Your task to perform on an android device: turn on improve location accuracy Image 0: 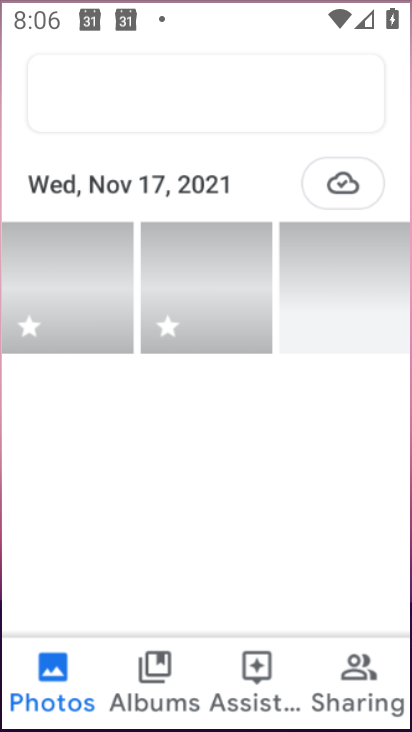
Step 0: drag from (300, 418) to (261, 226)
Your task to perform on an android device: turn on improve location accuracy Image 1: 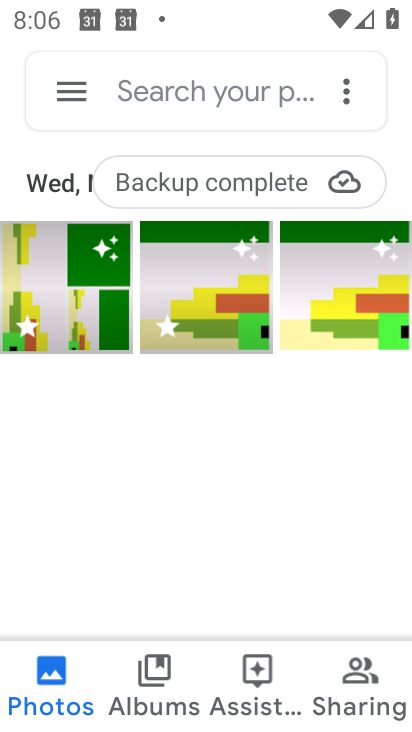
Step 1: press home button
Your task to perform on an android device: turn on improve location accuracy Image 2: 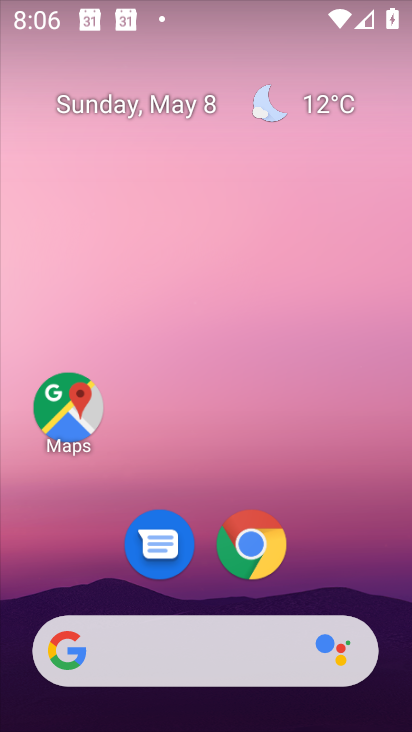
Step 2: drag from (332, 560) to (292, 178)
Your task to perform on an android device: turn on improve location accuracy Image 3: 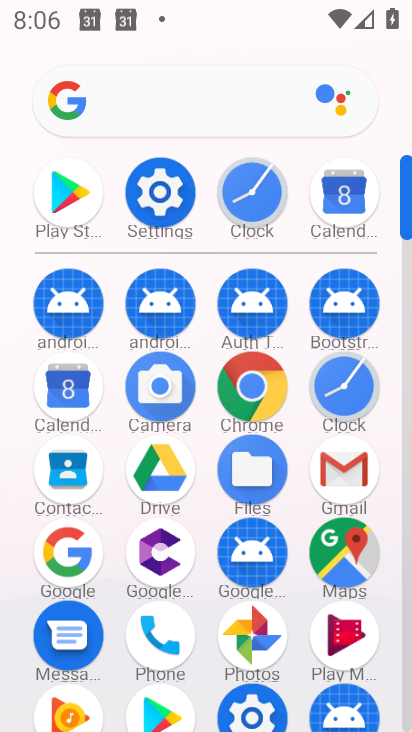
Step 3: click (162, 195)
Your task to perform on an android device: turn on improve location accuracy Image 4: 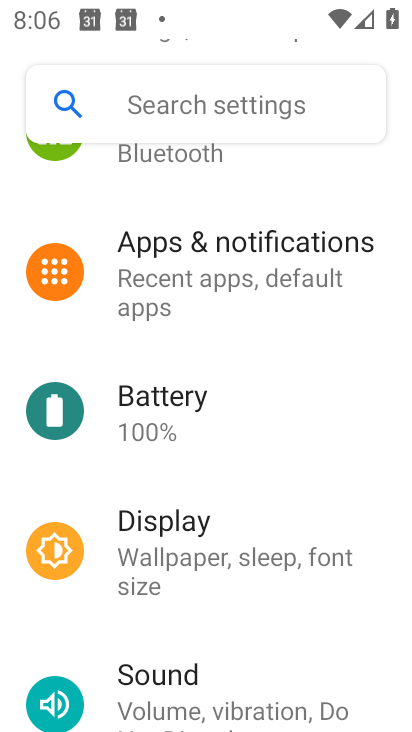
Step 4: drag from (269, 612) to (268, 261)
Your task to perform on an android device: turn on improve location accuracy Image 5: 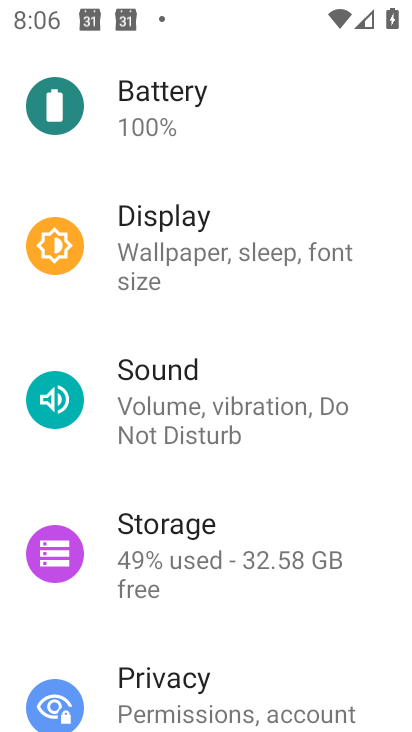
Step 5: drag from (233, 623) to (228, 277)
Your task to perform on an android device: turn on improve location accuracy Image 6: 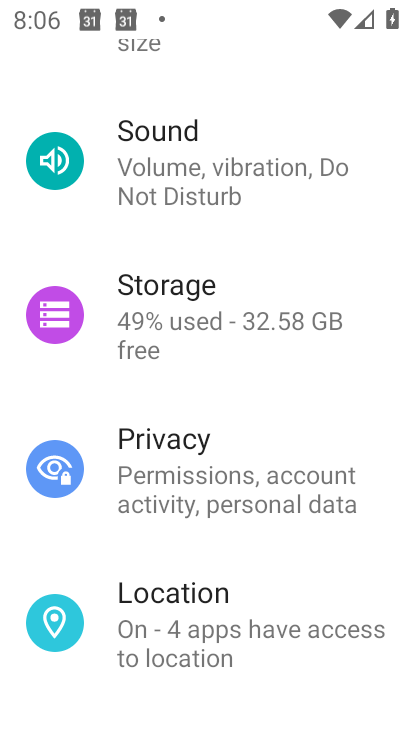
Step 6: click (166, 604)
Your task to perform on an android device: turn on improve location accuracy Image 7: 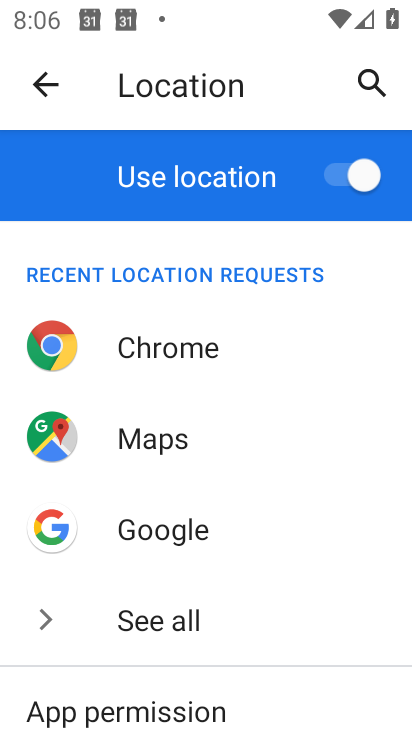
Step 7: drag from (264, 602) to (245, 324)
Your task to perform on an android device: turn on improve location accuracy Image 8: 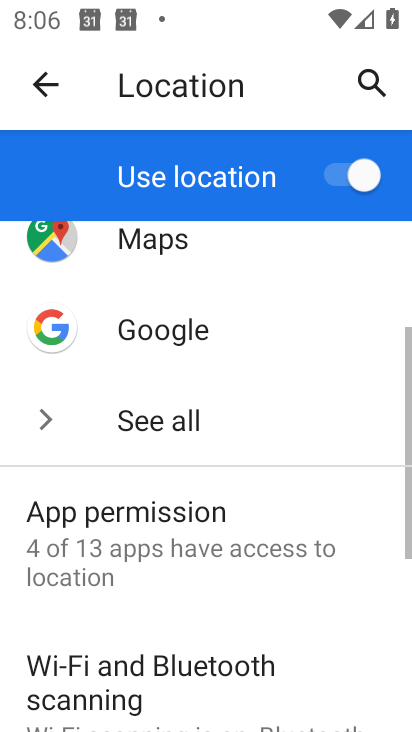
Step 8: drag from (233, 535) to (235, 239)
Your task to perform on an android device: turn on improve location accuracy Image 9: 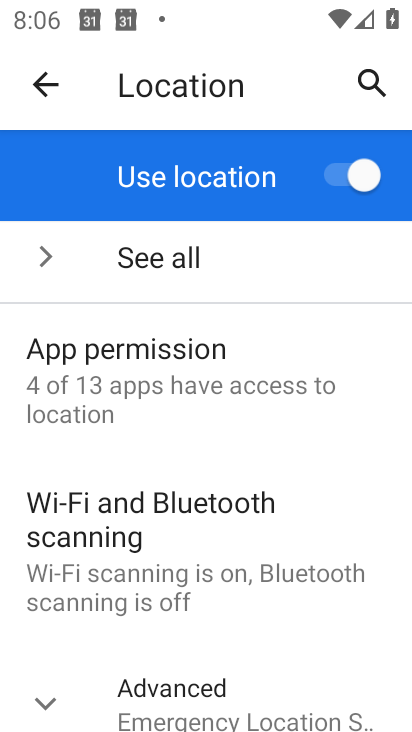
Step 9: click (53, 709)
Your task to perform on an android device: turn on improve location accuracy Image 10: 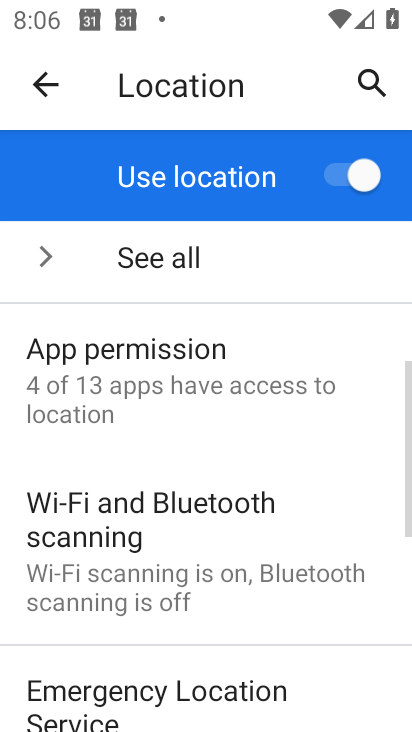
Step 10: drag from (231, 634) to (216, 365)
Your task to perform on an android device: turn on improve location accuracy Image 11: 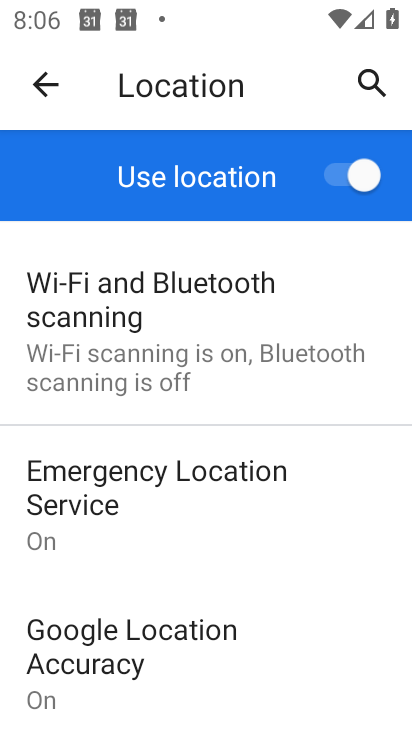
Step 11: click (93, 654)
Your task to perform on an android device: turn on improve location accuracy Image 12: 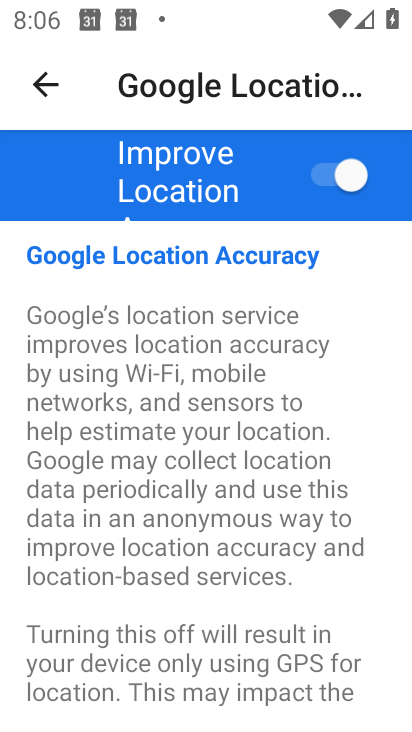
Step 12: task complete